Your task to perform on an android device: toggle translation in the chrome app Image 0: 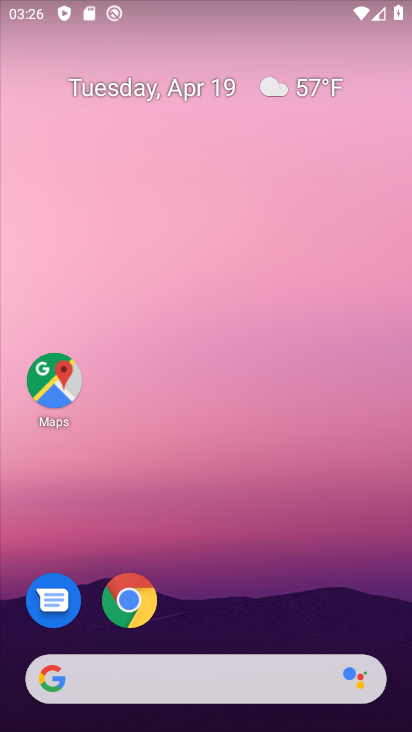
Step 0: click (267, 228)
Your task to perform on an android device: toggle translation in the chrome app Image 1: 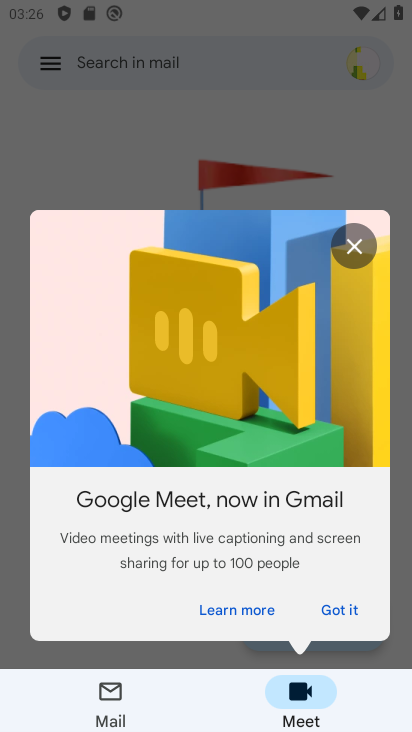
Step 1: click (365, 251)
Your task to perform on an android device: toggle translation in the chrome app Image 2: 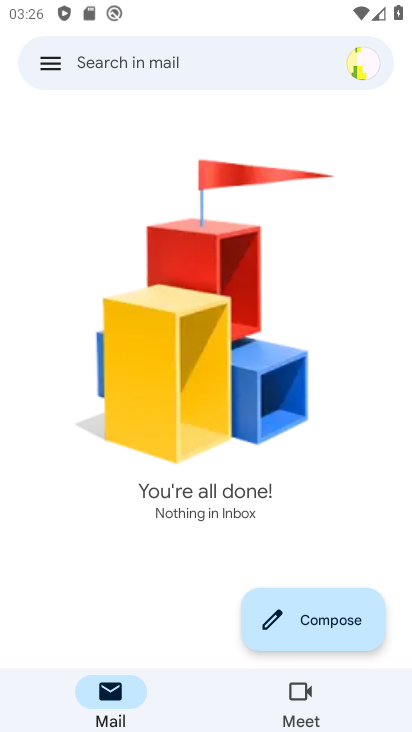
Step 2: press home button
Your task to perform on an android device: toggle translation in the chrome app Image 3: 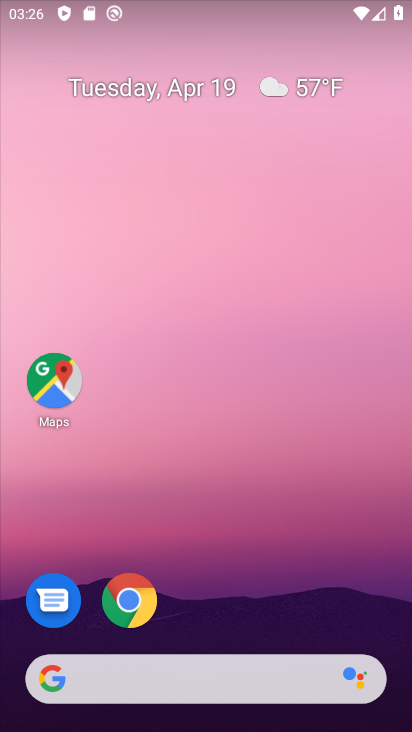
Step 3: click (145, 590)
Your task to perform on an android device: toggle translation in the chrome app Image 4: 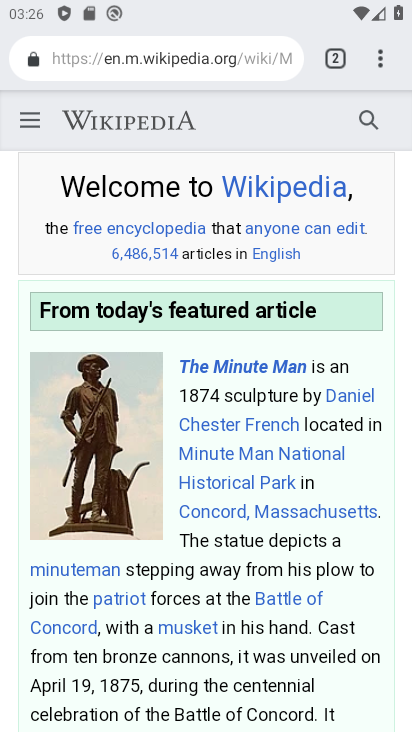
Step 4: click (371, 64)
Your task to perform on an android device: toggle translation in the chrome app Image 5: 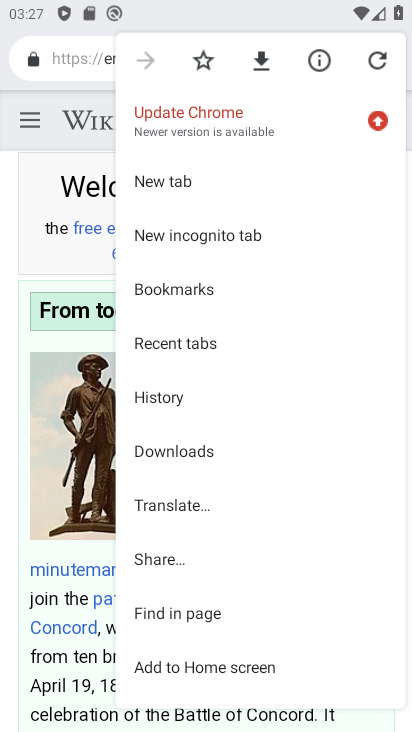
Step 5: drag from (239, 624) to (270, 203)
Your task to perform on an android device: toggle translation in the chrome app Image 6: 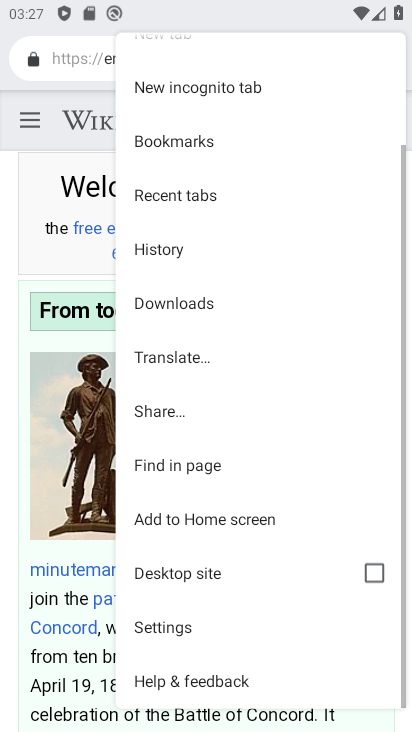
Step 6: click (287, 635)
Your task to perform on an android device: toggle translation in the chrome app Image 7: 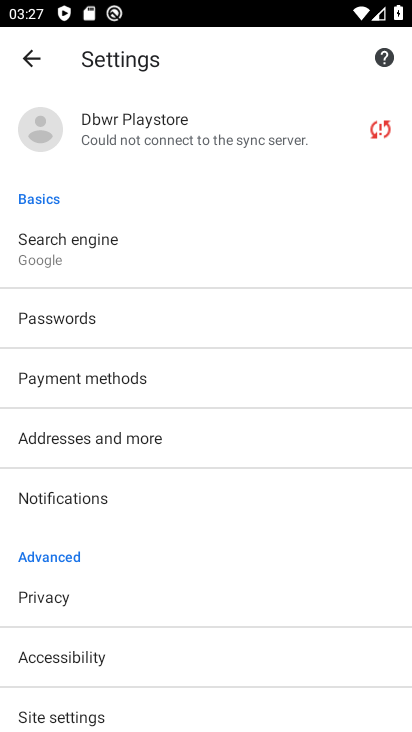
Step 7: drag from (278, 654) to (274, 310)
Your task to perform on an android device: toggle translation in the chrome app Image 8: 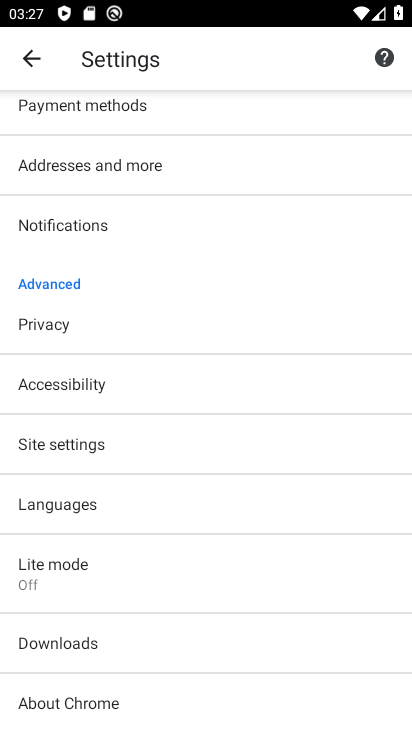
Step 8: click (186, 512)
Your task to perform on an android device: toggle translation in the chrome app Image 9: 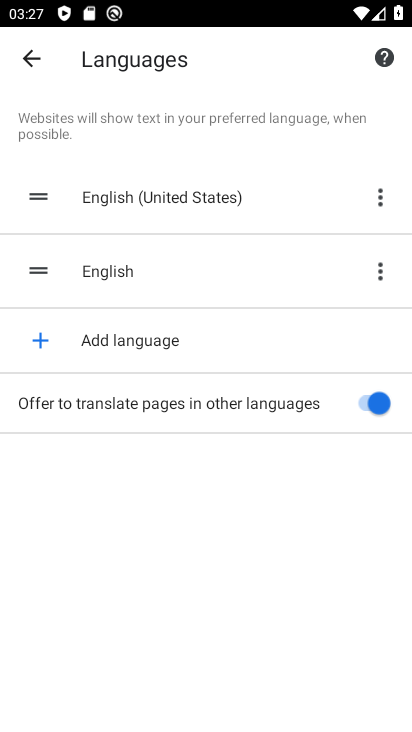
Step 9: click (375, 414)
Your task to perform on an android device: toggle translation in the chrome app Image 10: 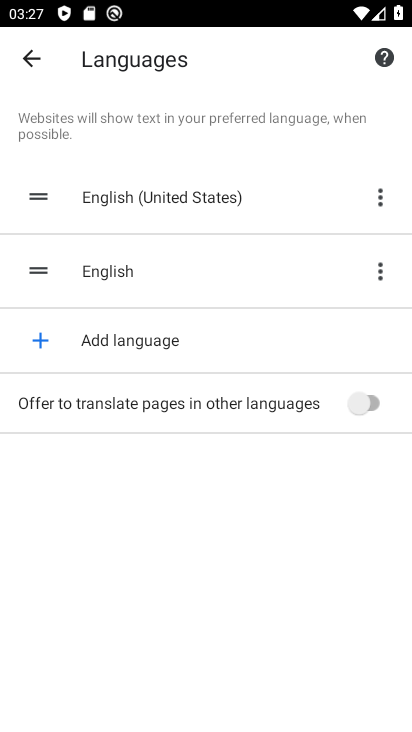
Step 10: task complete